Your task to perform on an android device: toggle wifi Image 0: 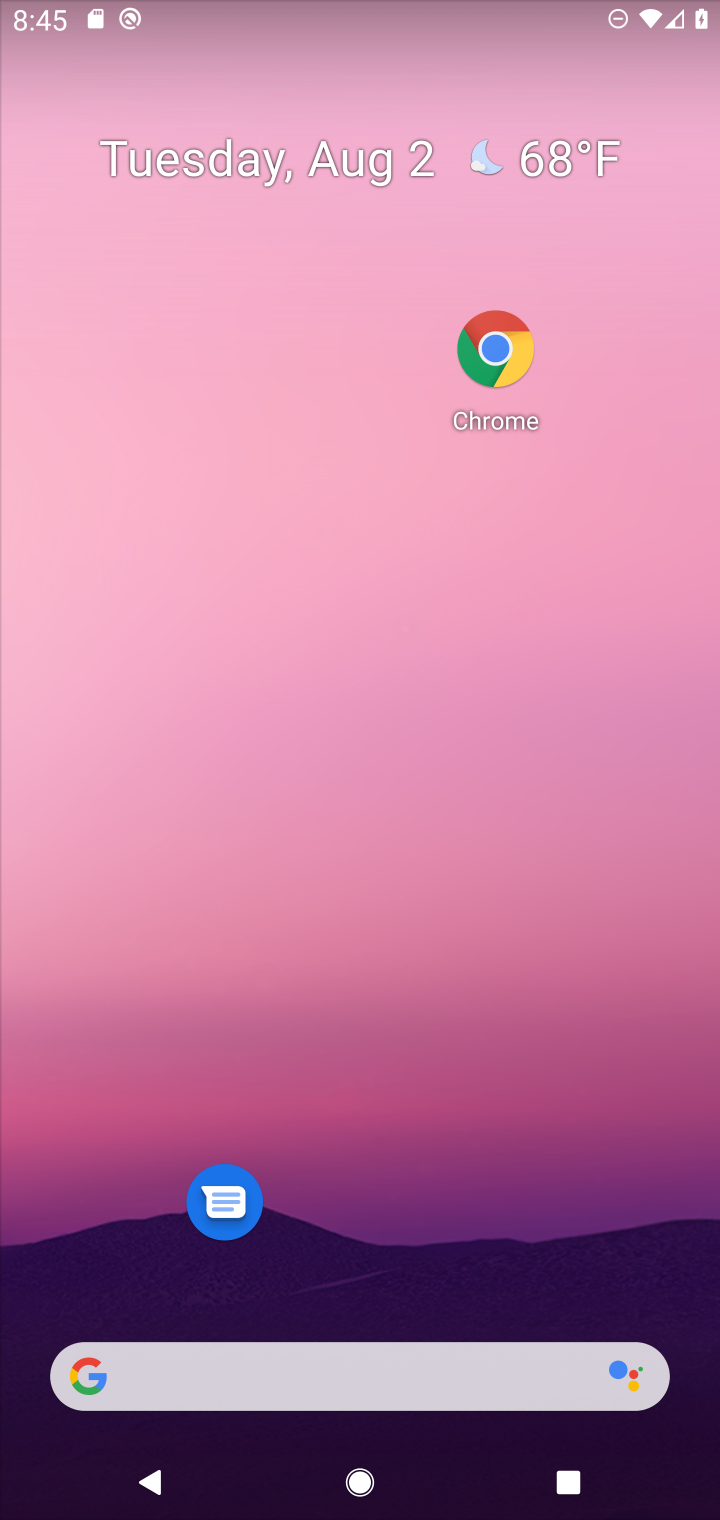
Step 0: drag from (439, 1028) to (523, 61)
Your task to perform on an android device: toggle wifi Image 1: 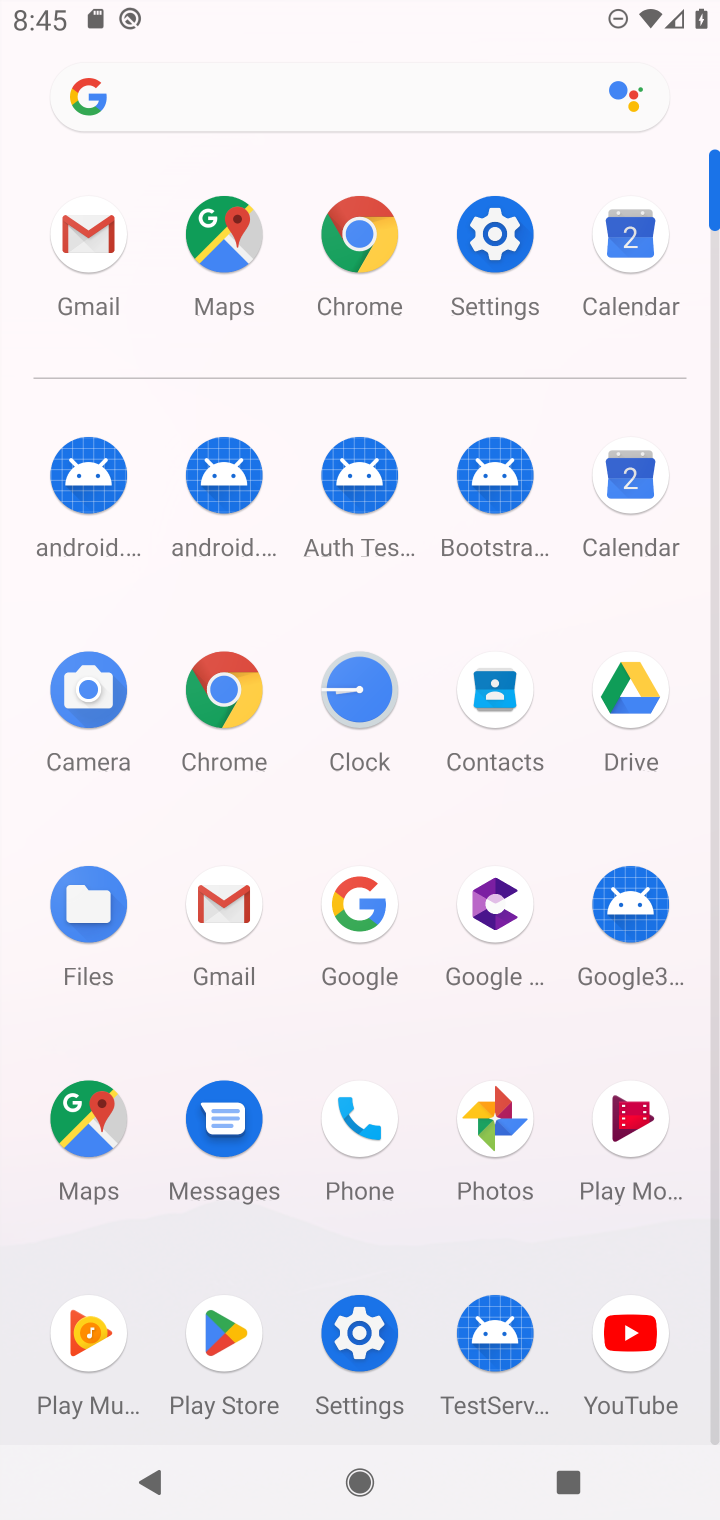
Step 1: click (499, 244)
Your task to perform on an android device: toggle wifi Image 2: 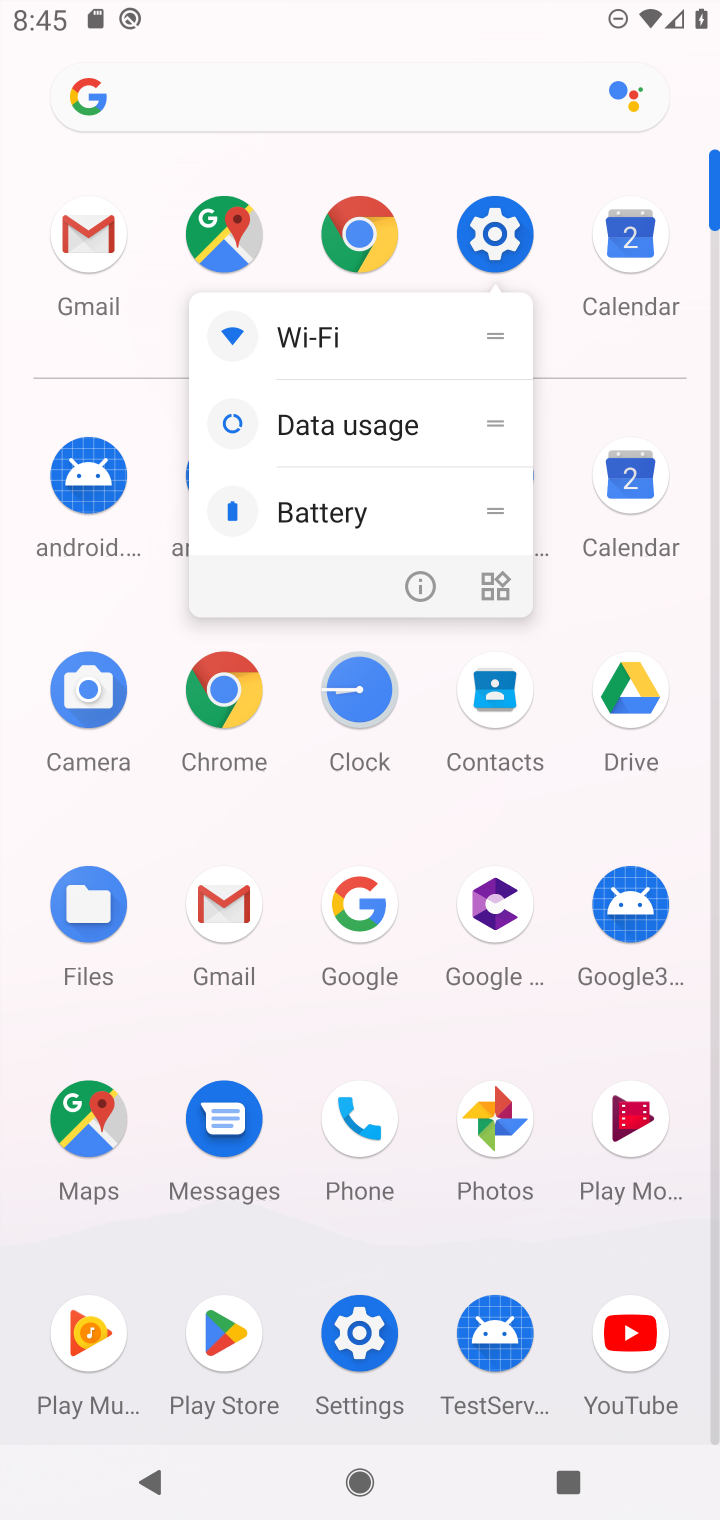
Step 2: click (487, 245)
Your task to perform on an android device: toggle wifi Image 3: 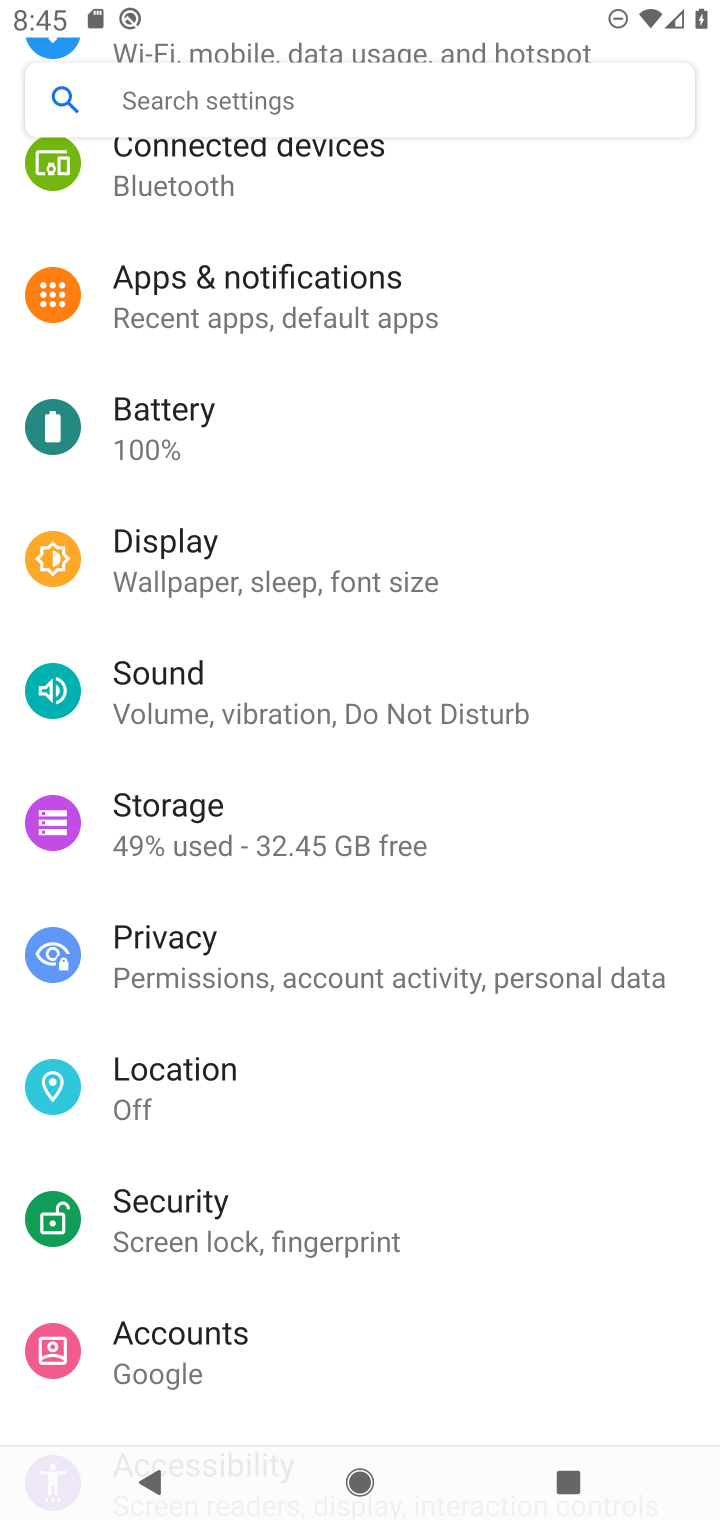
Step 3: drag from (536, 291) to (623, 751)
Your task to perform on an android device: toggle wifi Image 4: 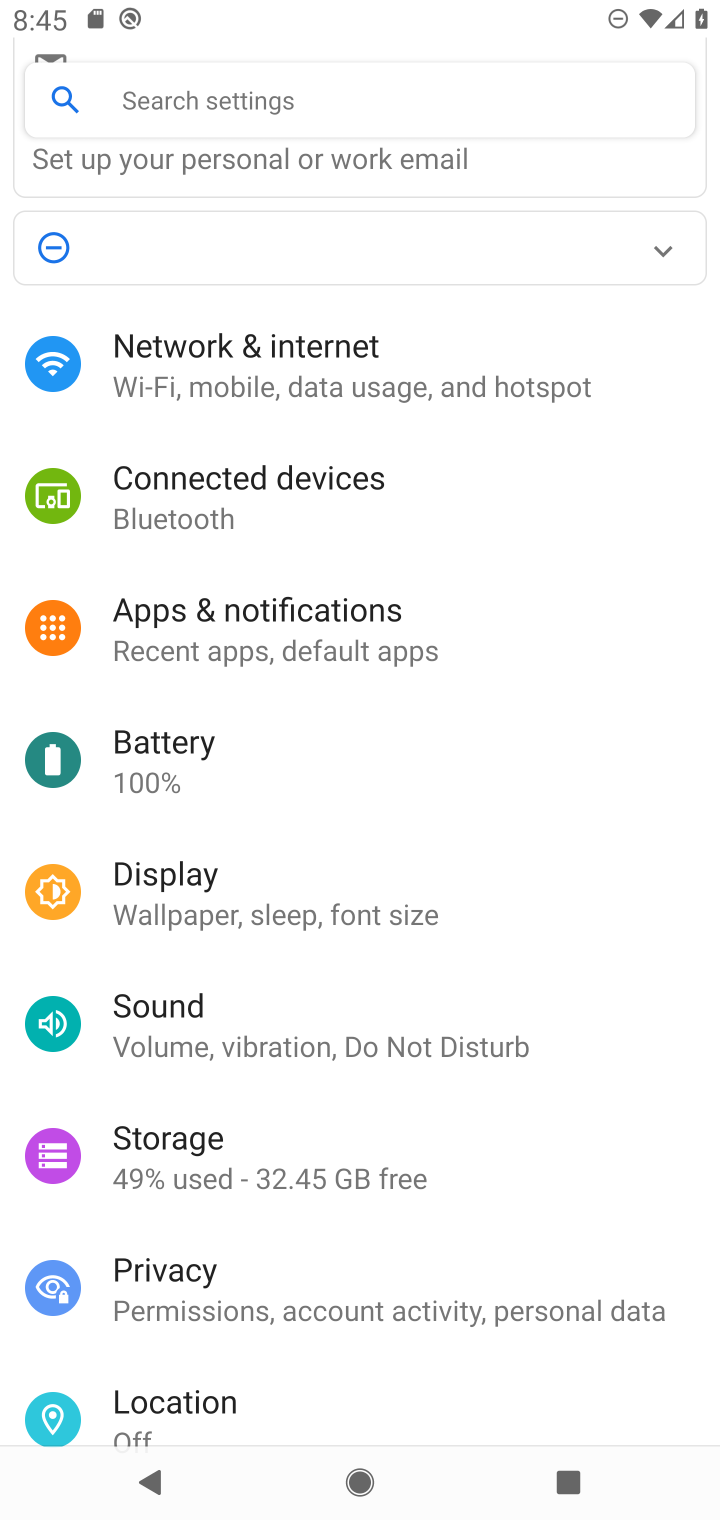
Step 4: click (228, 397)
Your task to perform on an android device: toggle wifi Image 5: 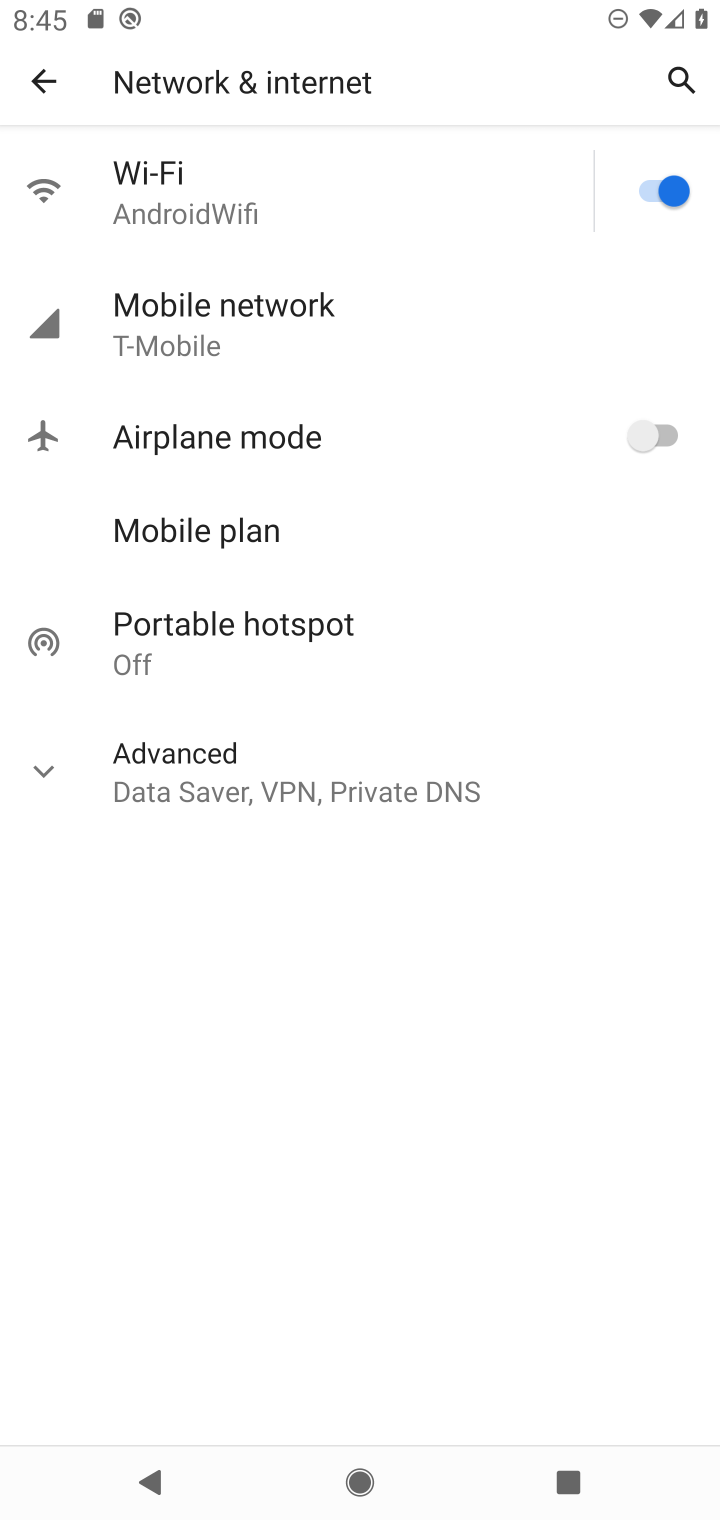
Step 5: click (658, 198)
Your task to perform on an android device: toggle wifi Image 6: 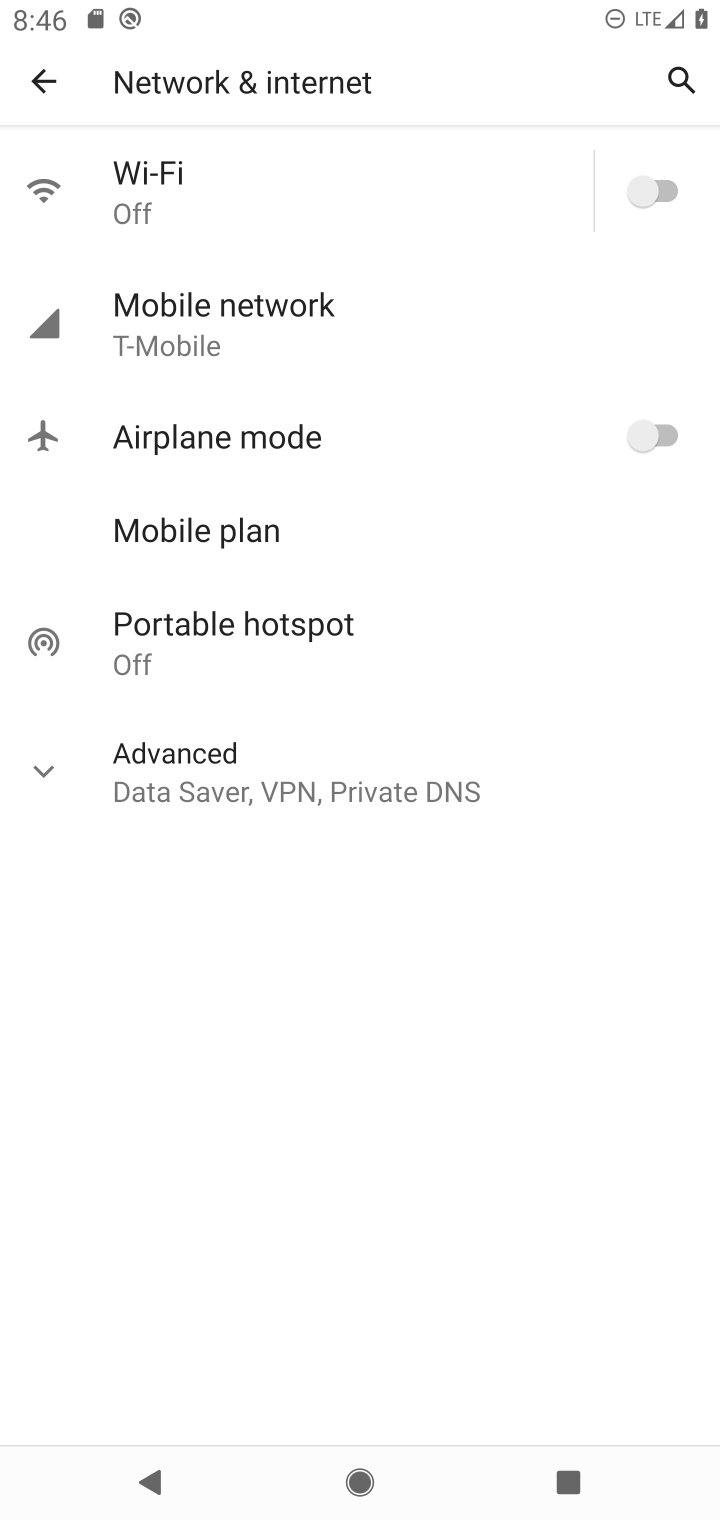
Step 6: task complete